Your task to perform on an android device: Turn on the flashlight Image 0: 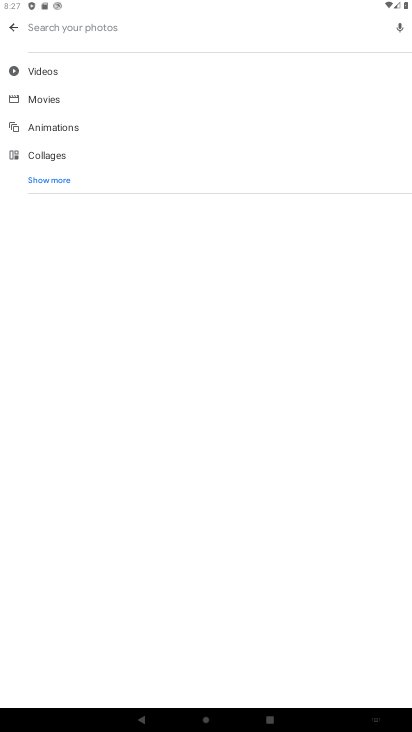
Step 0: press home button
Your task to perform on an android device: Turn on the flashlight Image 1: 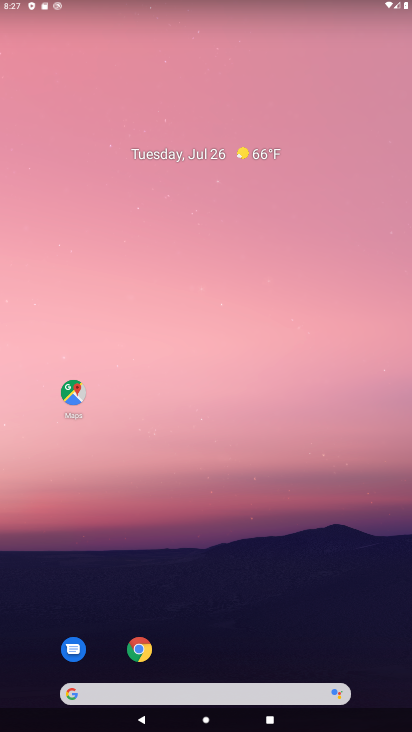
Step 1: task complete